Your task to perform on an android device: change the clock display to analog Image 0: 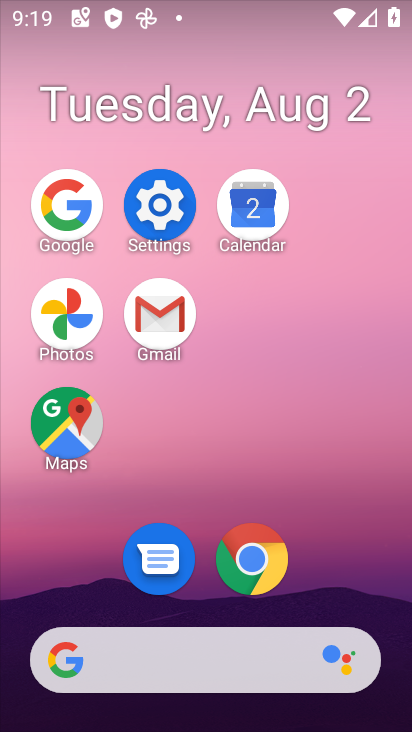
Step 0: drag from (348, 568) to (294, 227)
Your task to perform on an android device: change the clock display to analog Image 1: 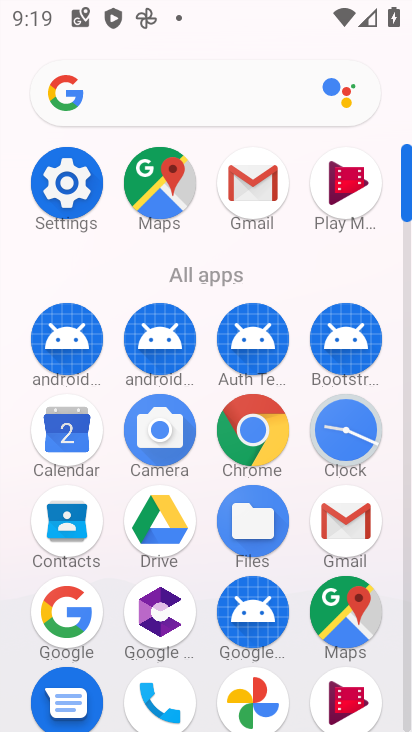
Step 1: drag from (364, 418) to (247, 334)
Your task to perform on an android device: change the clock display to analog Image 2: 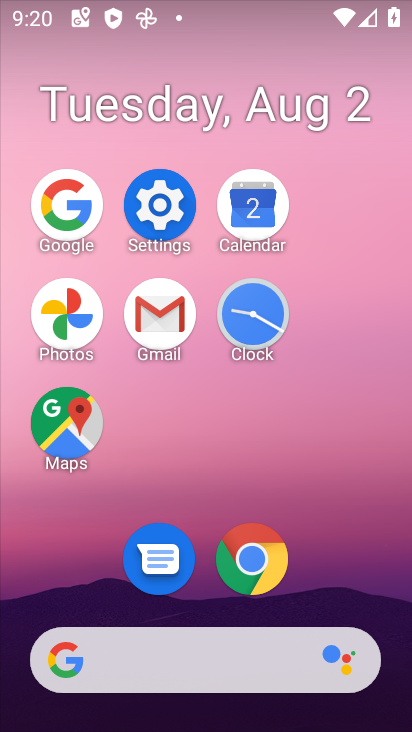
Step 2: click (168, 288)
Your task to perform on an android device: change the clock display to analog Image 3: 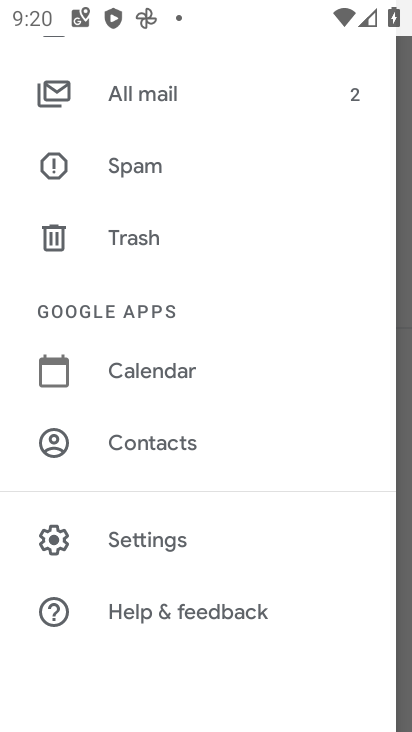
Step 3: press home button
Your task to perform on an android device: change the clock display to analog Image 4: 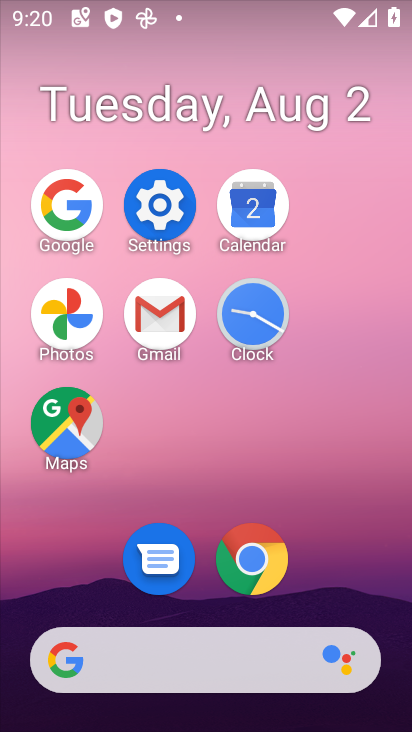
Step 4: click (239, 308)
Your task to perform on an android device: change the clock display to analog Image 5: 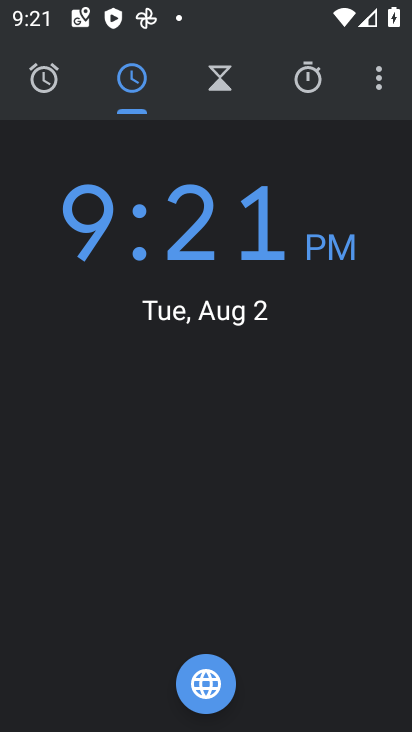
Step 5: click (394, 64)
Your task to perform on an android device: change the clock display to analog Image 6: 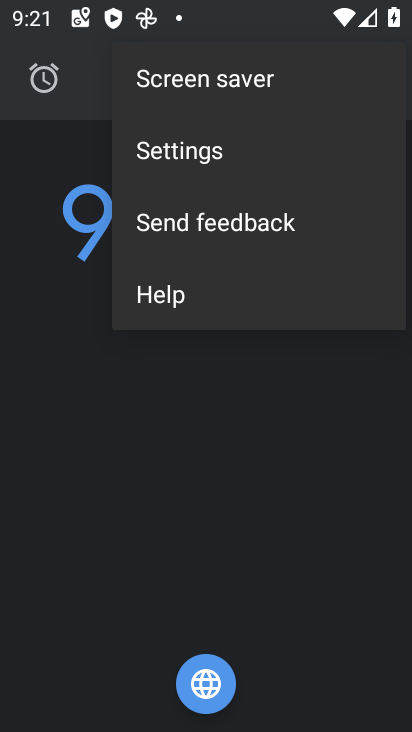
Step 6: click (163, 146)
Your task to perform on an android device: change the clock display to analog Image 7: 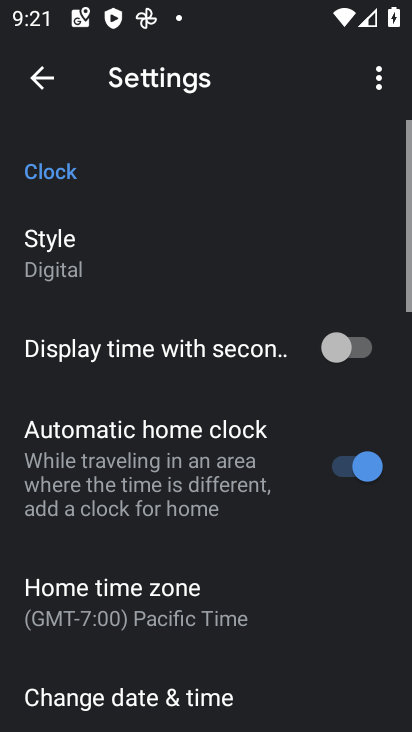
Step 7: click (80, 241)
Your task to perform on an android device: change the clock display to analog Image 8: 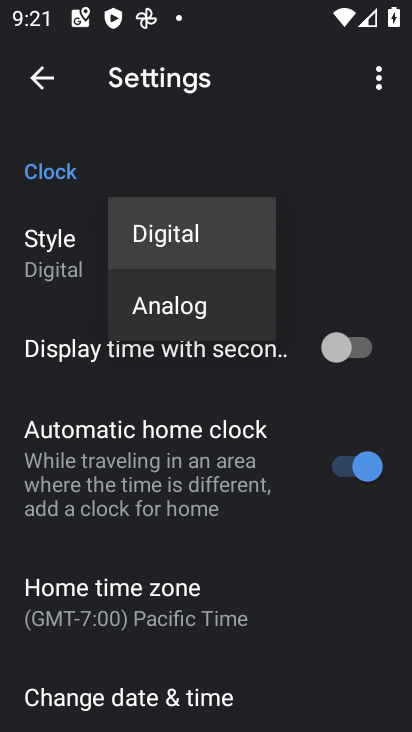
Step 8: click (173, 318)
Your task to perform on an android device: change the clock display to analog Image 9: 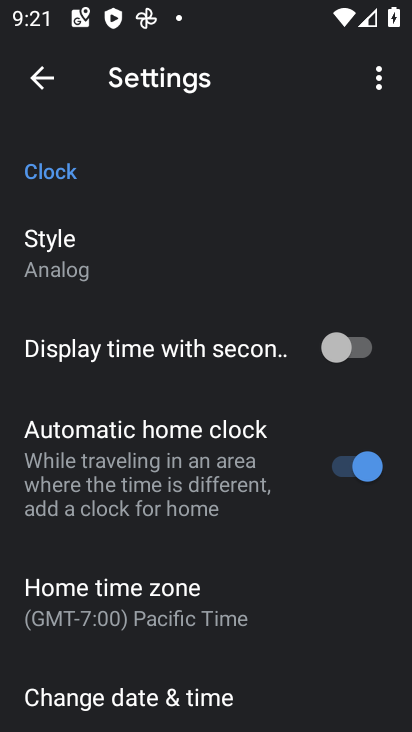
Step 9: task complete